Your task to perform on an android device: open app "Google Keep" (install if not already installed) Image 0: 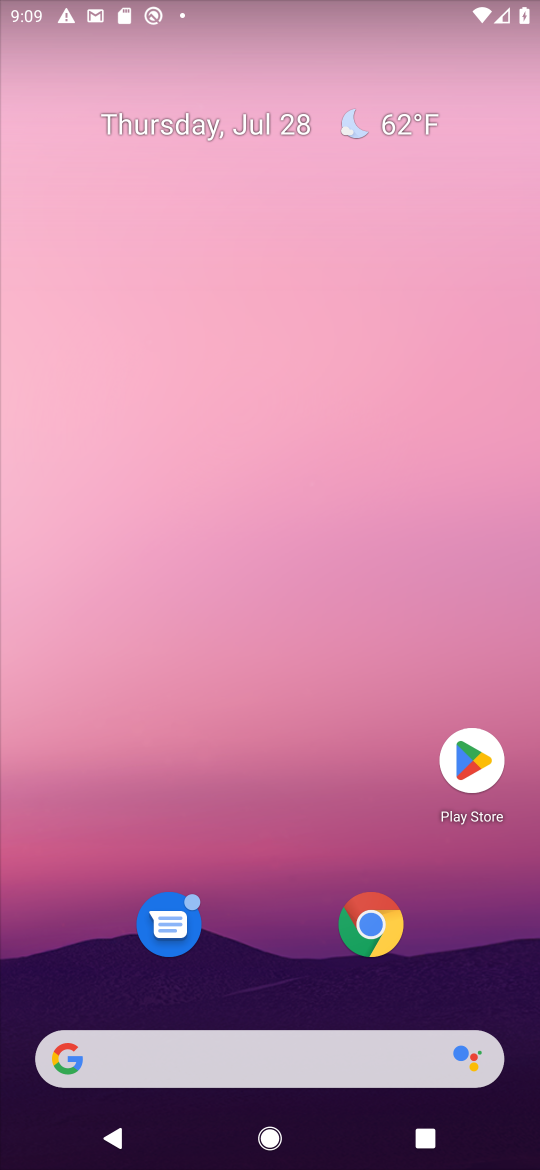
Step 0: click (471, 762)
Your task to perform on an android device: open app "Google Keep" (install if not already installed) Image 1: 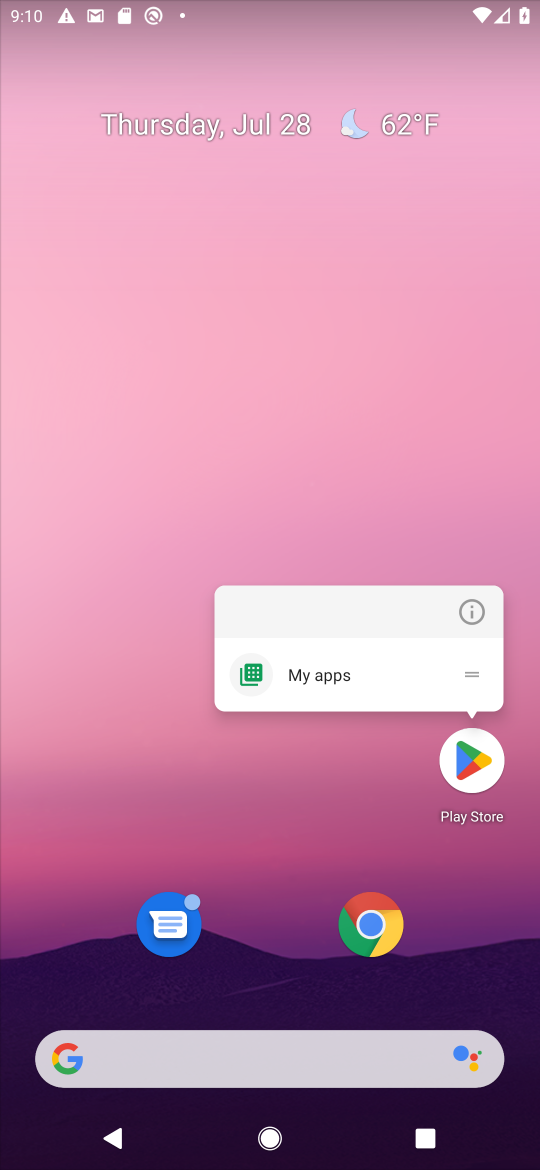
Step 1: click (471, 764)
Your task to perform on an android device: open app "Google Keep" (install if not already installed) Image 2: 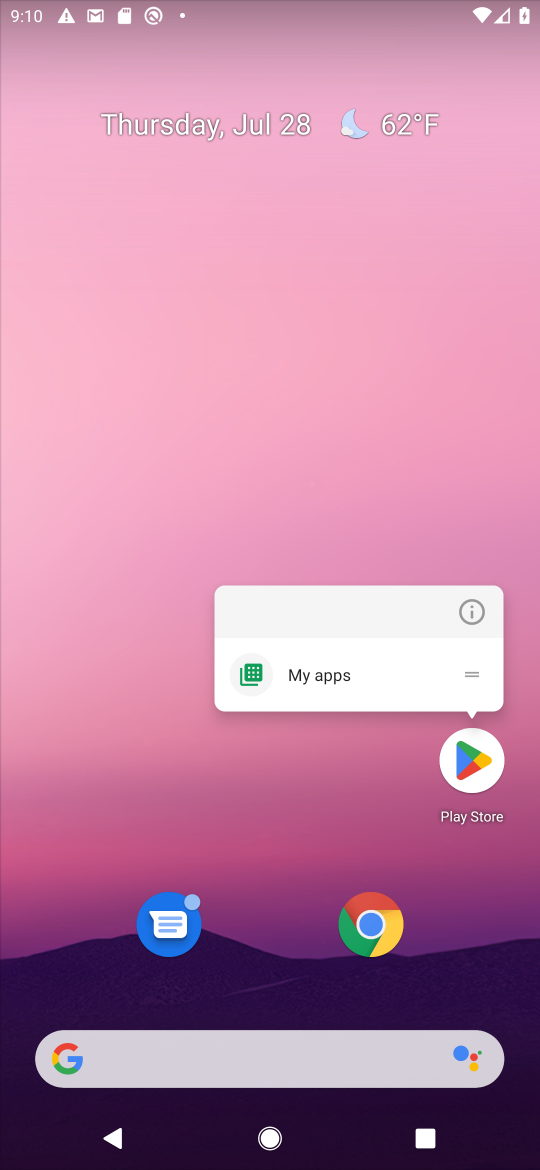
Step 2: click (473, 763)
Your task to perform on an android device: open app "Google Keep" (install if not already installed) Image 3: 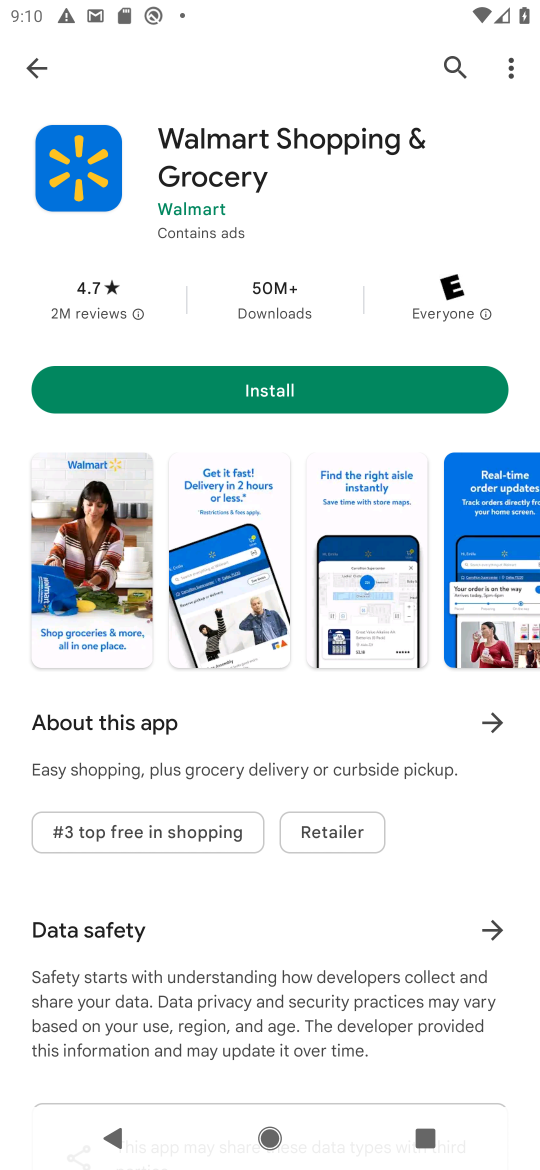
Step 3: click (448, 62)
Your task to perform on an android device: open app "Google Keep" (install if not already installed) Image 4: 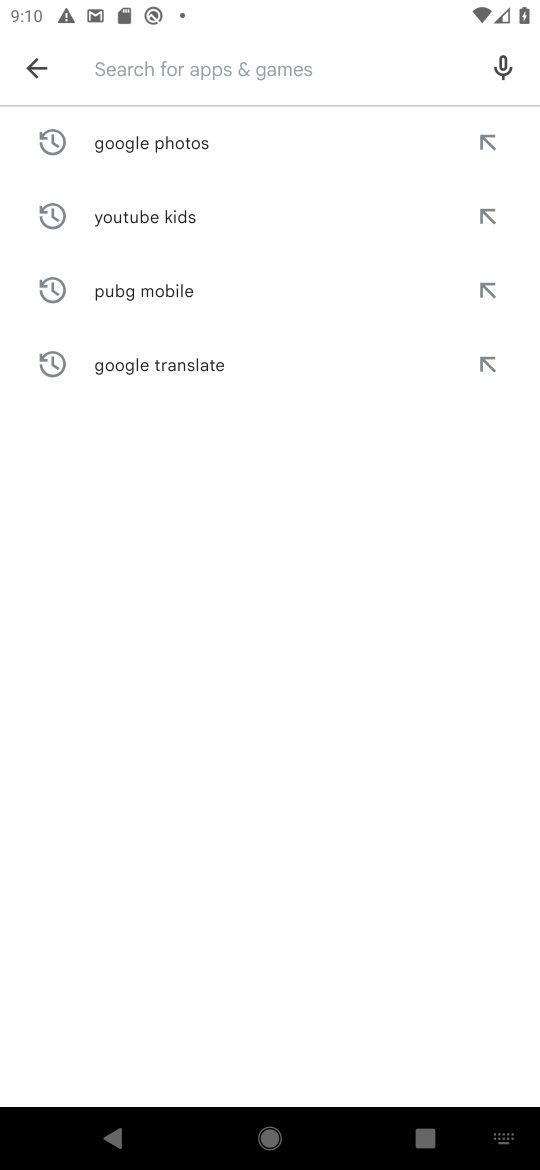
Step 4: type "Google Keep"
Your task to perform on an android device: open app "Google Keep" (install if not already installed) Image 5: 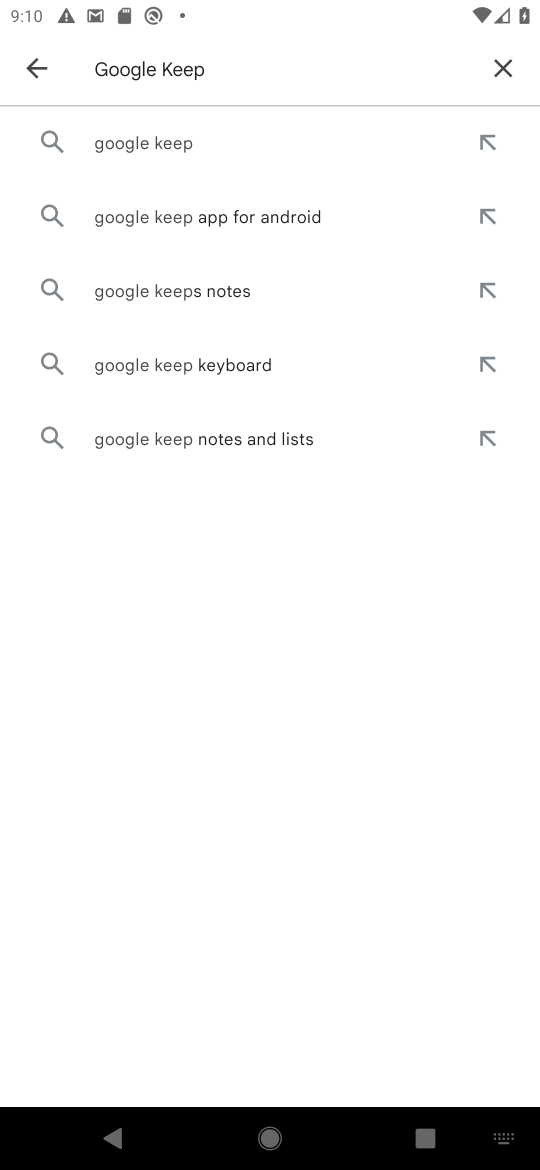
Step 5: click (171, 137)
Your task to perform on an android device: open app "Google Keep" (install if not already installed) Image 6: 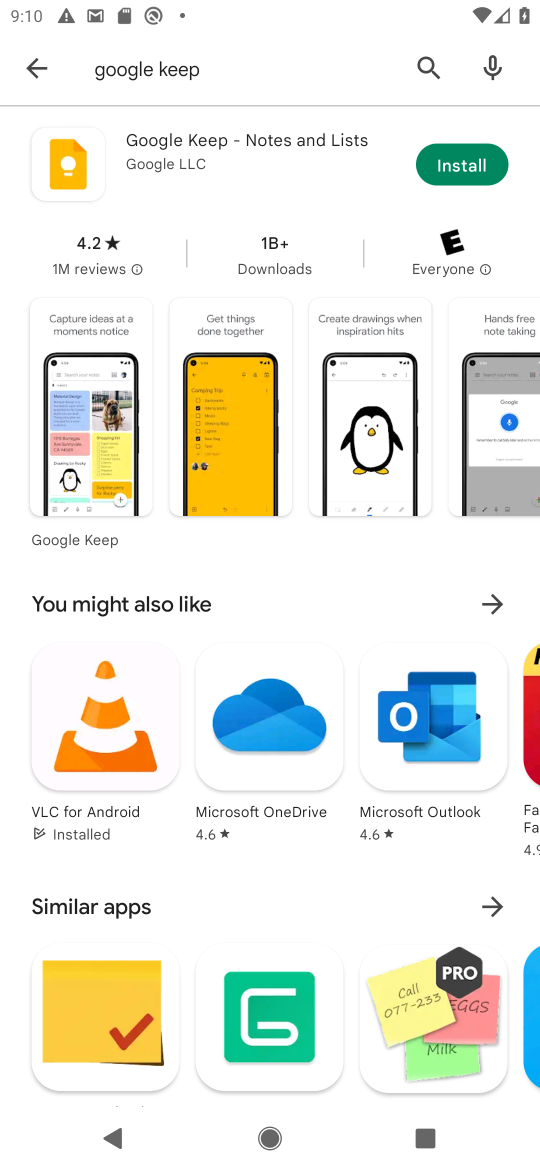
Step 6: click (441, 161)
Your task to perform on an android device: open app "Google Keep" (install if not already installed) Image 7: 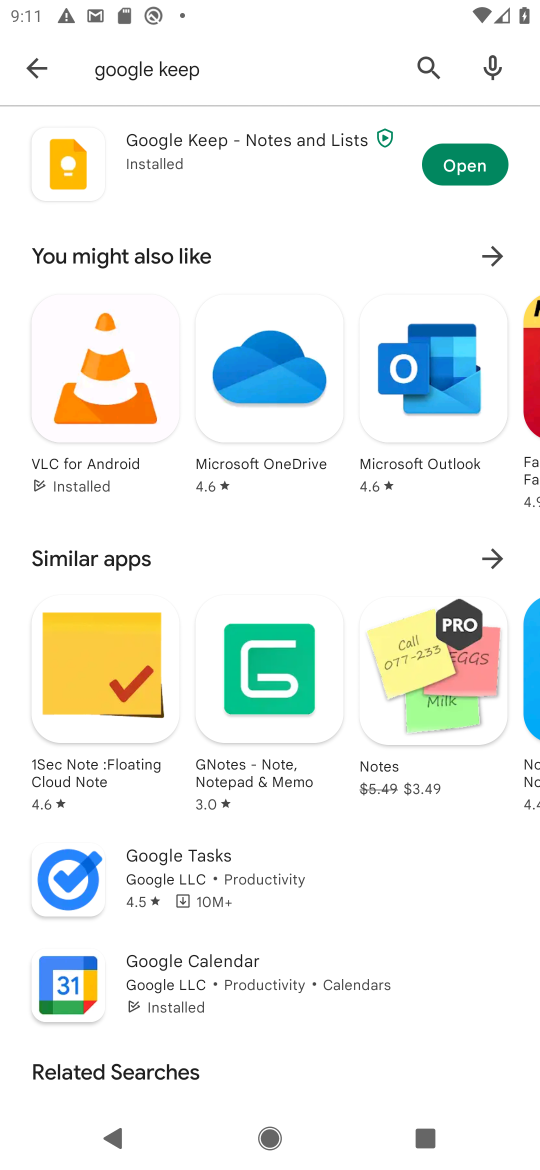
Step 7: click (441, 158)
Your task to perform on an android device: open app "Google Keep" (install if not already installed) Image 8: 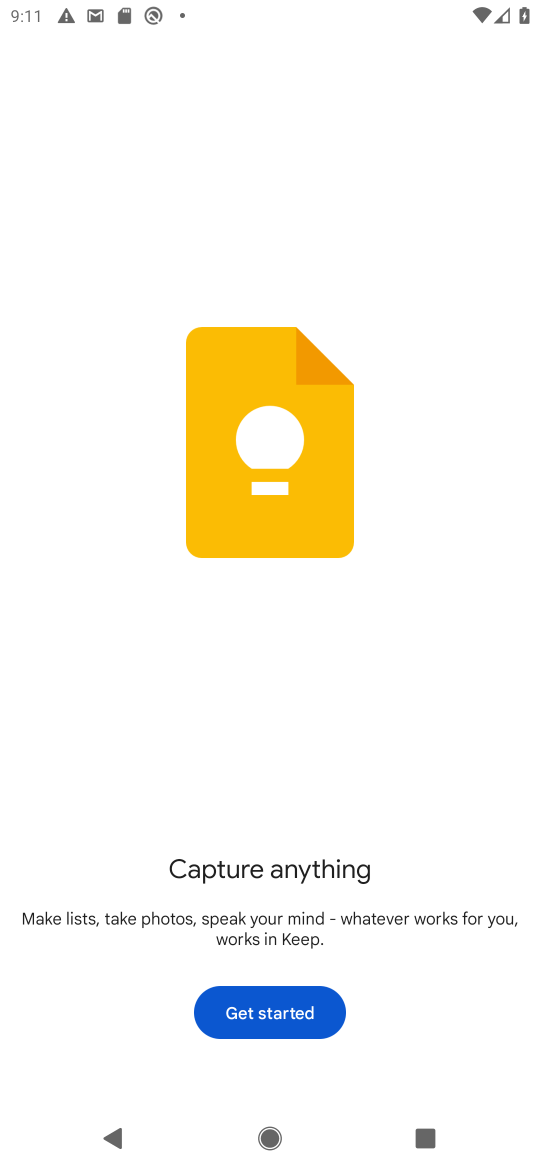
Step 8: task complete